Your task to perform on an android device: open app "Yahoo Mail" (install if not already installed) and go to login screen Image 0: 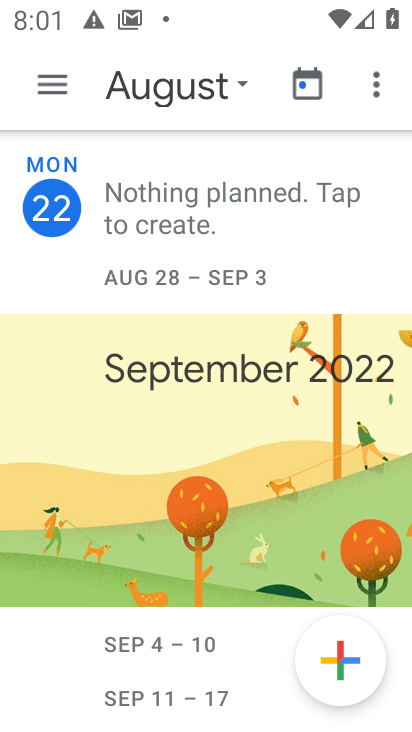
Step 0: press home button
Your task to perform on an android device: open app "Yahoo Mail" (install if not already installed) and go to login screen Image 1: 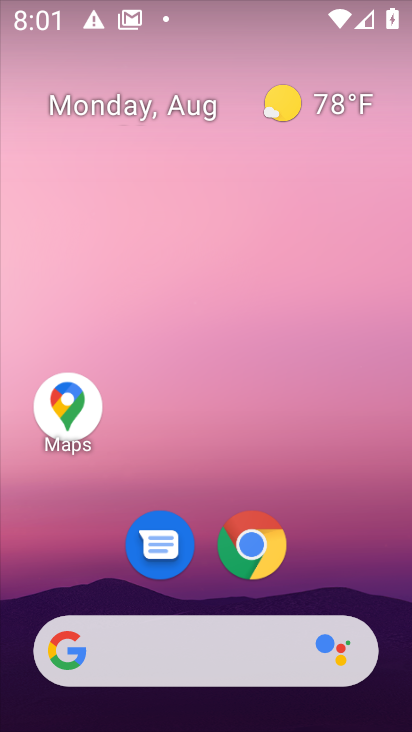
Step 1: drag from (365, 552) to (366, 93)
Your task to perform on an android device: open app "Yahoo Mail" (install if not already installed) and go to login screen Image 2: 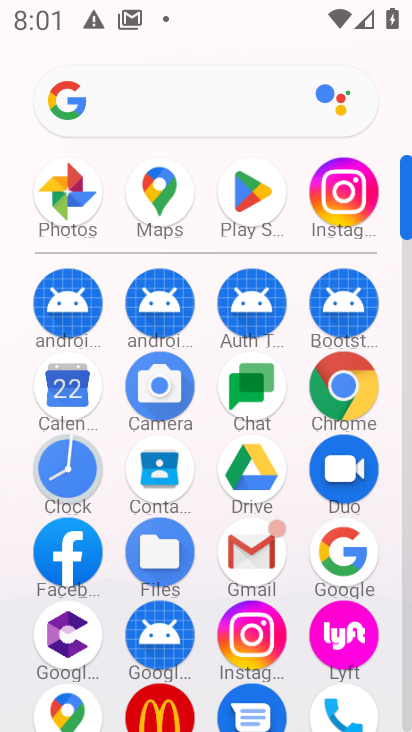
Step 2: click (251, 202)
Your task to perform on an android device: open app "Yahoo Mail" (install if not already installed) and go to login screen Image 3: 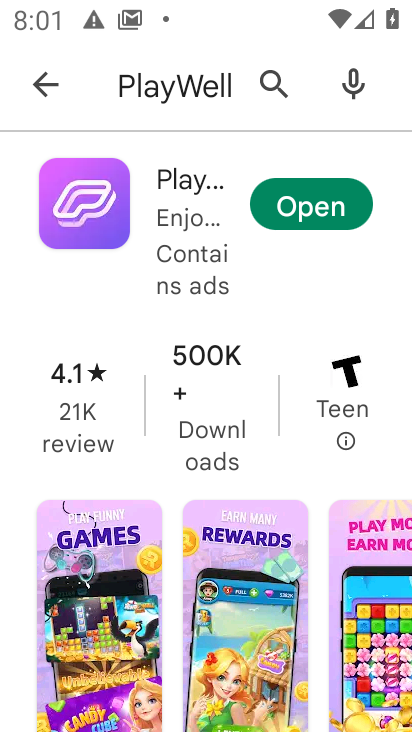
Step 3: press back button
Your task to perform on an android device: open app "Yahoo Mail" (install if not already installed) and go to login screen Image 4: 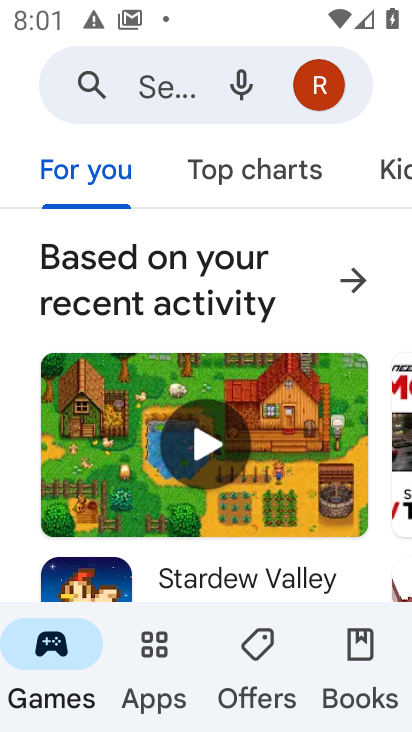
Step 4: click (168, 99)
Your task to perform on an android device: open app "Yahoo Mail" (install if not already installed) and go to login screen Image 5: 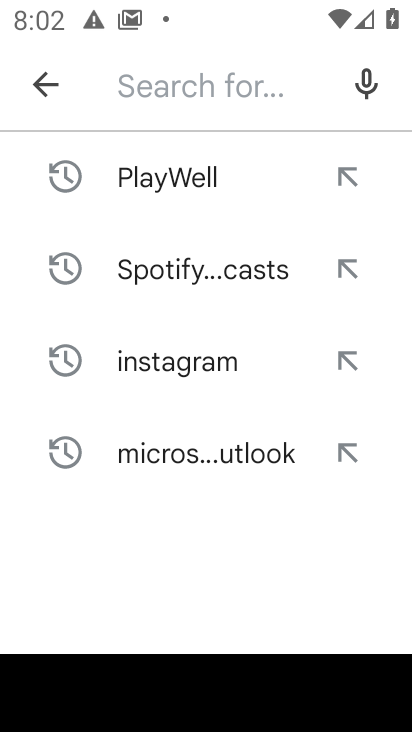
Step 5: type "yahoo mail"
Your task to perform on an android device: open app "Yahoo Mail" (install if not already installed) and go to login screen Image 6: 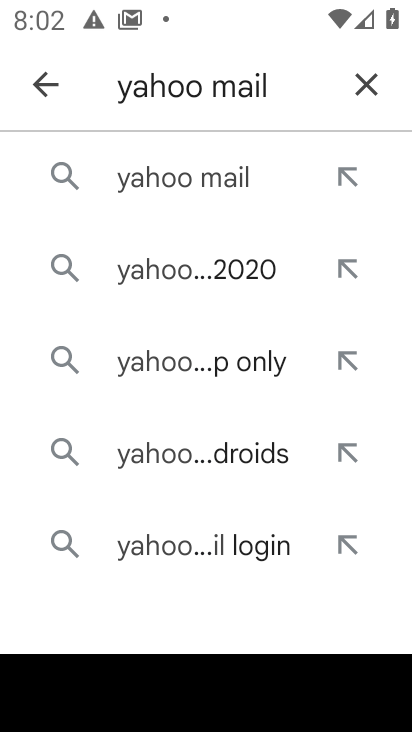
Step 6: click (234, 193)
Your task to perform on an android device: open app "Yahoo Mail" (install if not already installed) and go to login screen Image 7: 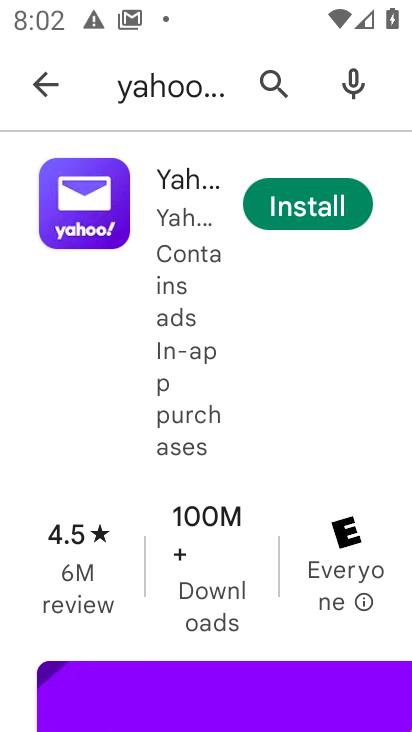
Step 7: click (335, 207)
Your task to perform on an android device: open app "Yahoo Mail" (install if not already installed) and go to login screen Image 8: 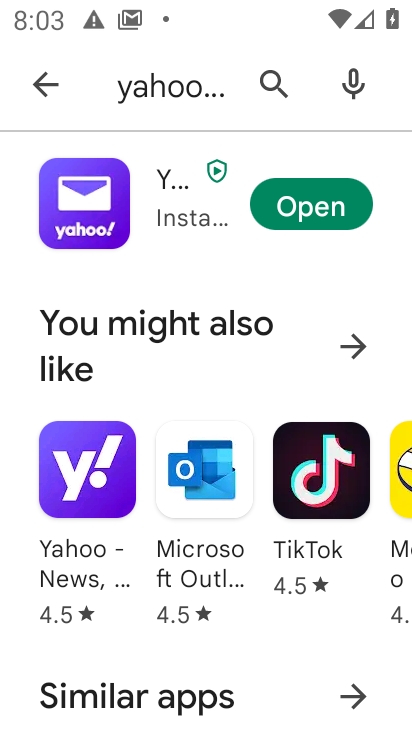
Step 8: click (335, 202)
Your task to perform on an android device: open app "Yahoo Mail" (install if not already installed) and go to login screen Image 9: 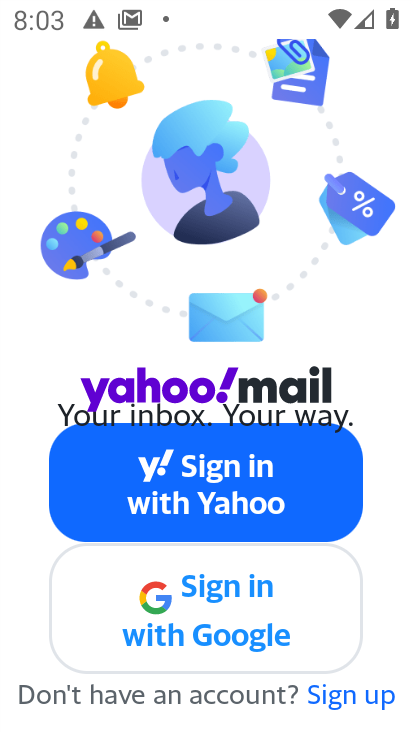
Step 9: task complete